Your task to perform on an android device: empty trash in google photos Image 0: 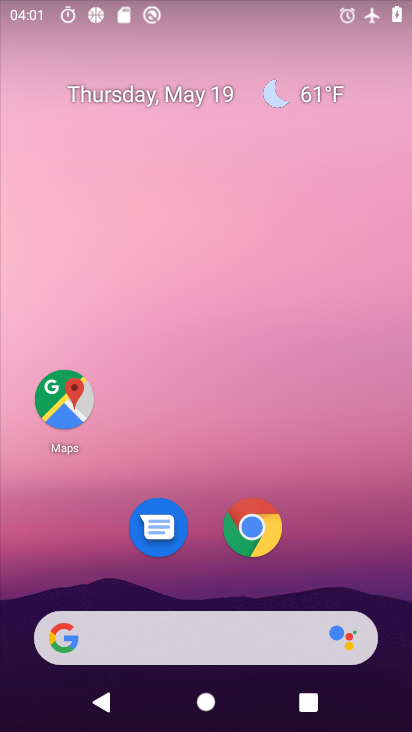
Step 0: drag from (205, 589) to (213, 100)
Your task to perform on an android device: empty trash in google photos Image 1: 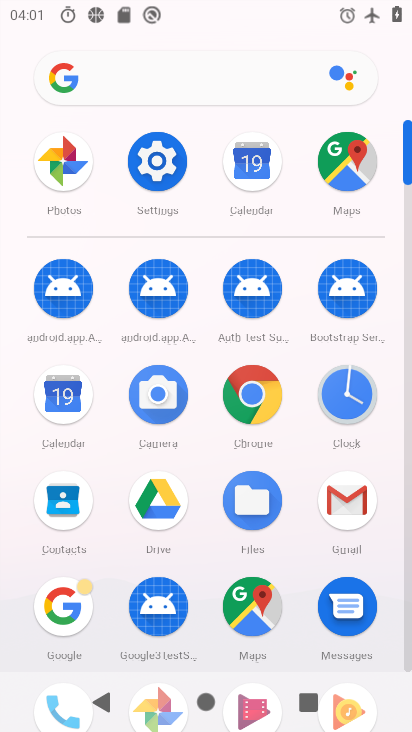
Step 1: drag from (201, 592) to (293, 158)
Your task to perform on an android device: empty trash in google photos Image 2: 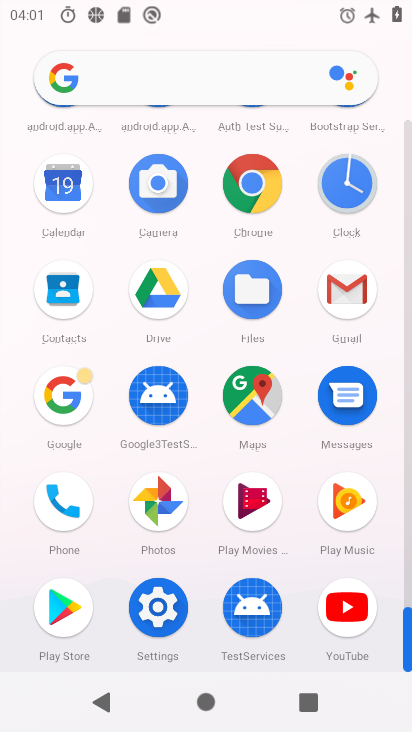
Step 2: click (156, 483)
Your task to perform on an android device: empty trash in google photos Image 3: 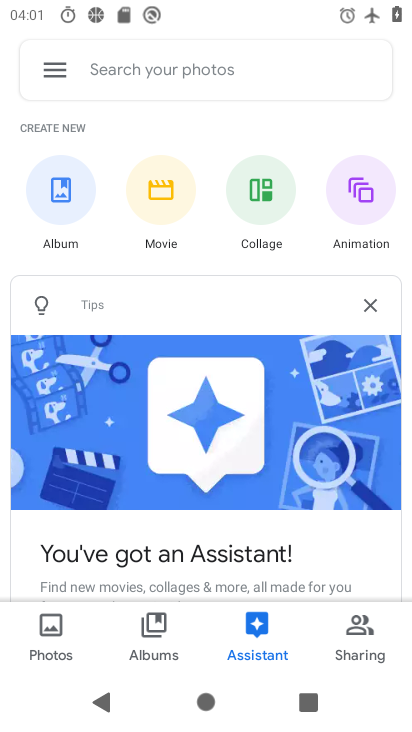
Step 3: click (53, 77)
Your task to perform on an android device: empty trash in google photos Image 4: 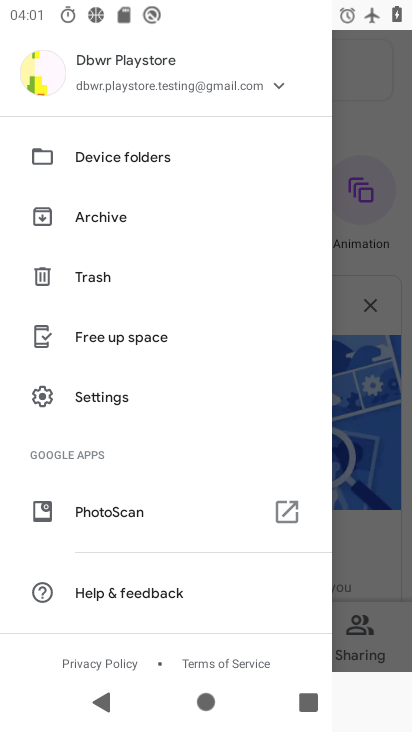
Step 4: click (93, 279)
Your task to perform on an android device: empty trash in google photos Image 5: 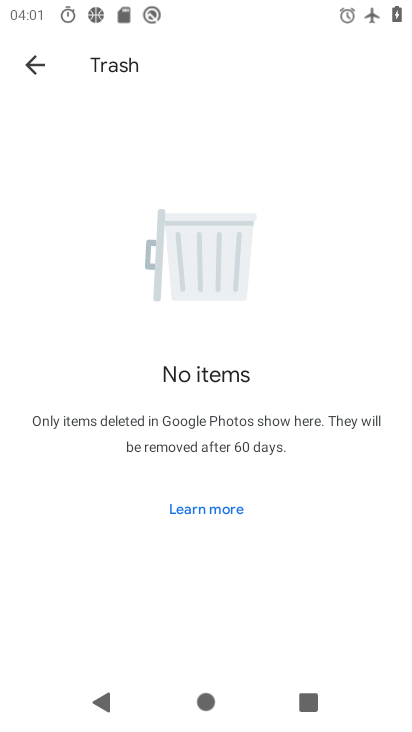
Step 5: task complete